Your task to perform on an android device: Open eBay Image 0: 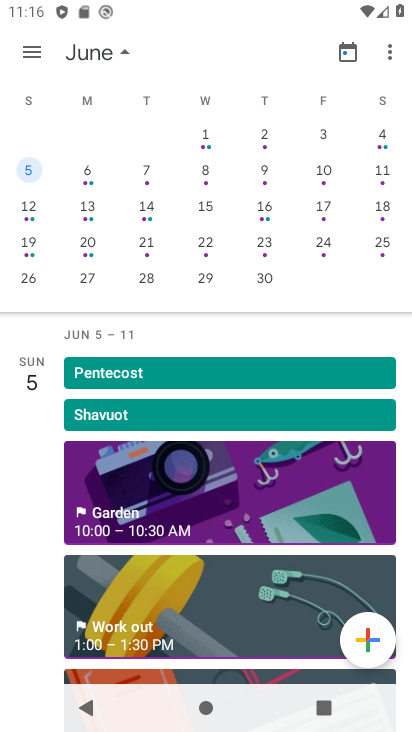
Step 0: press home button
Your task to perform on an android device: Open eBay Image 1: 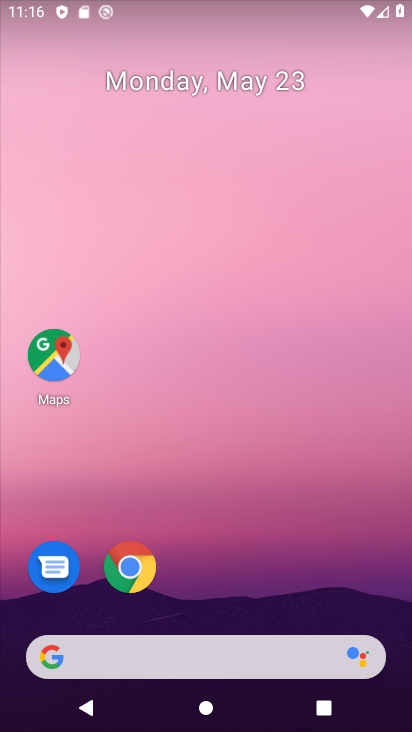
Step 1: drag from (319, 583) to (321, 182)
Your task to perform on an android device: Open eBay Image 2: 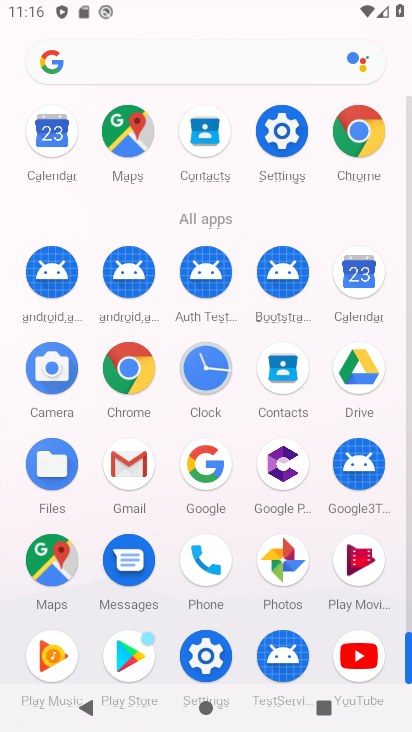
Step 2: click (126, 372)
Your task to perform on an android device: Open eBay Image 3: 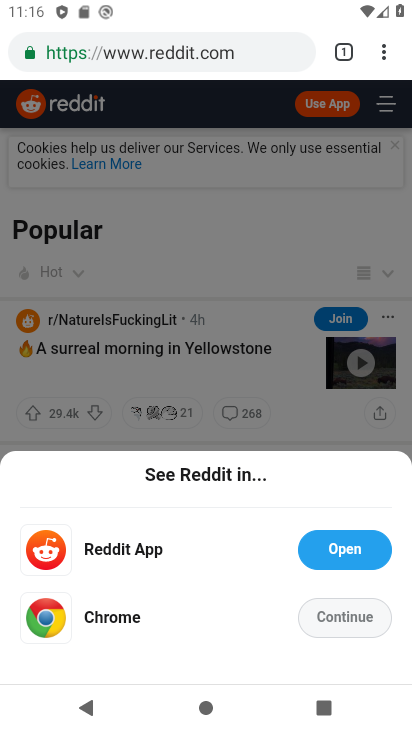
Step 3: click (187, 64)
Your task to perform on an android device: Open eBay Image 4: 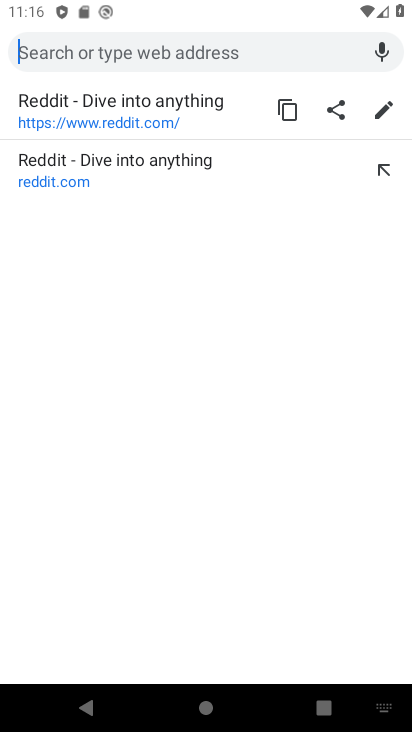
Step 4: type "ebay"
Your task to perform on an android device: Open eBay Image 5: 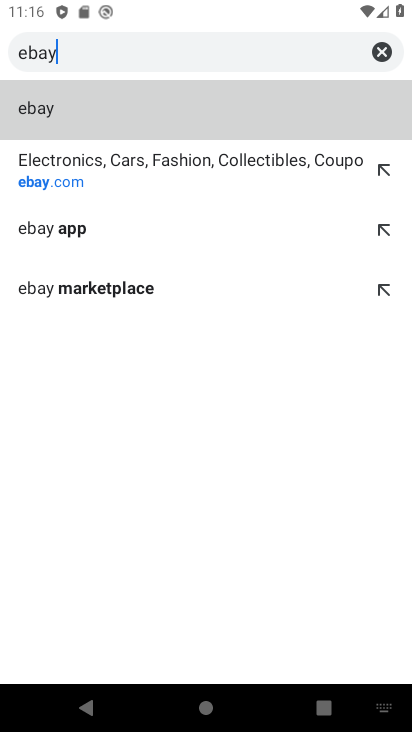
Step 5: click (72, 103)
Your task to perform on an android device: Open eBay Image 6: 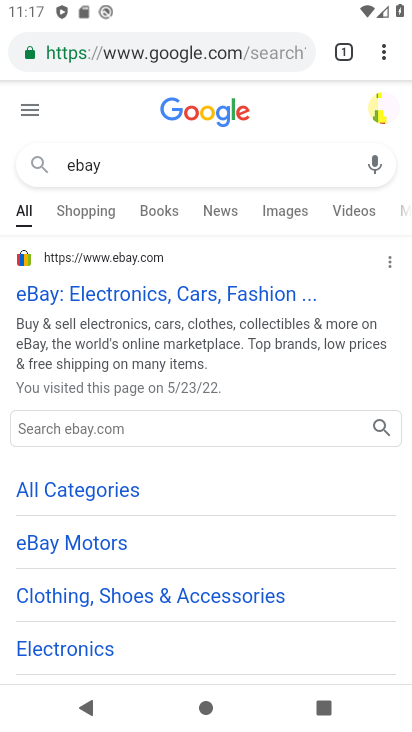
Step 6: click (170, 303)
Your task to perform on an android device: Open eBay Image 7: 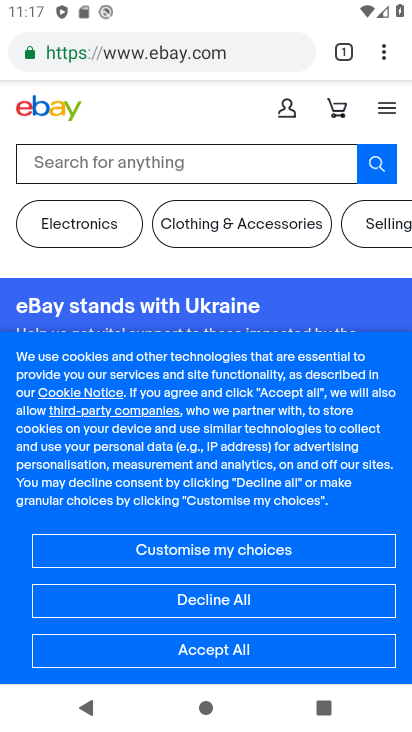
Step 7: task complete